Your task to perform on an android device: Open notification settings Image 0: 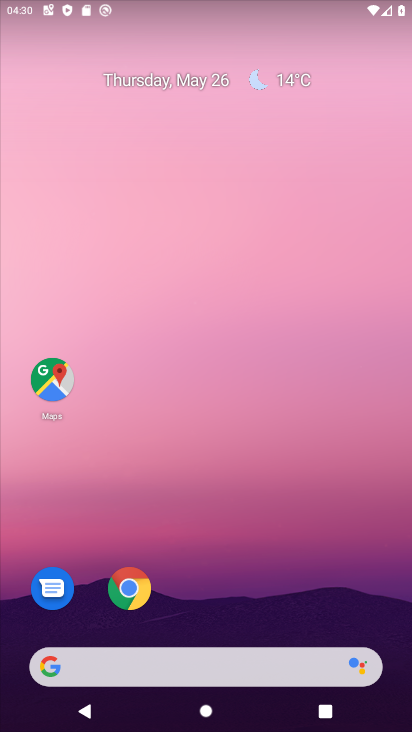
Step 0: drag from (215, 577) to (258, 50)
Your task to perform on an android device: Open notification settings Image 1: 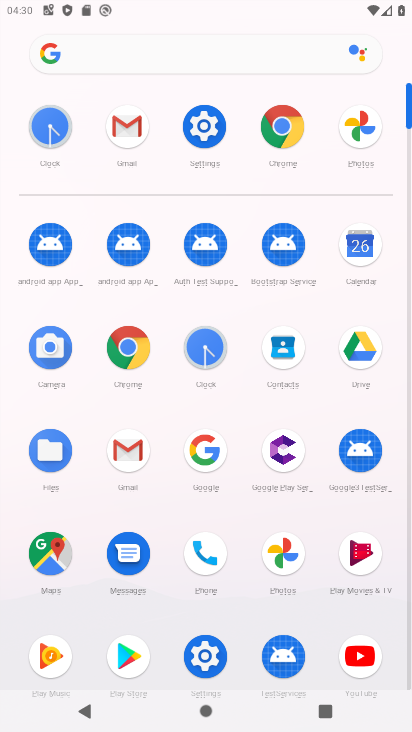
Step 1: click (203, 149)
Your task to perform on an android device: Open notification settings Image 2: 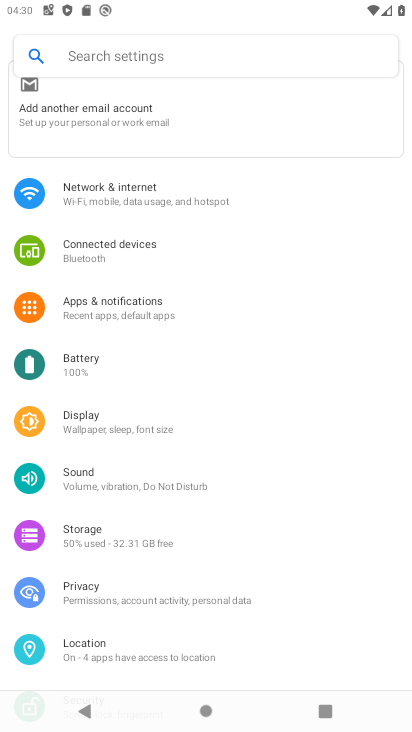
Step 2: click (140, 309)
Your task to perform on an android device: Open notification settings Image 3: 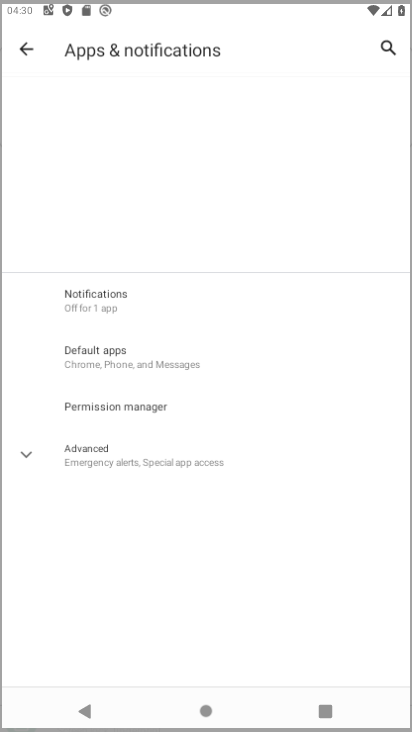
Step 3: task complete